Your task to perform on an android device: Open the stopwatch Image 0: 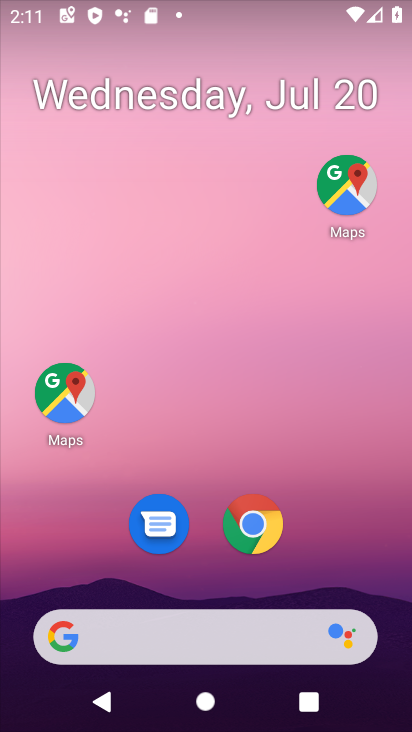
Step 0: drag from (218, 446) to (291, 7)
Your task to perform on an android device: Open the stopwatch Image 1: 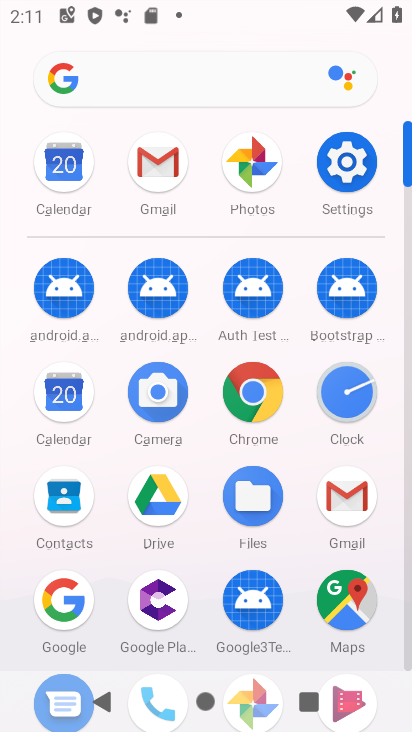
Step 1: click (328, 395)
Your task to perform on an android device: Open the stopwatch Image 2: 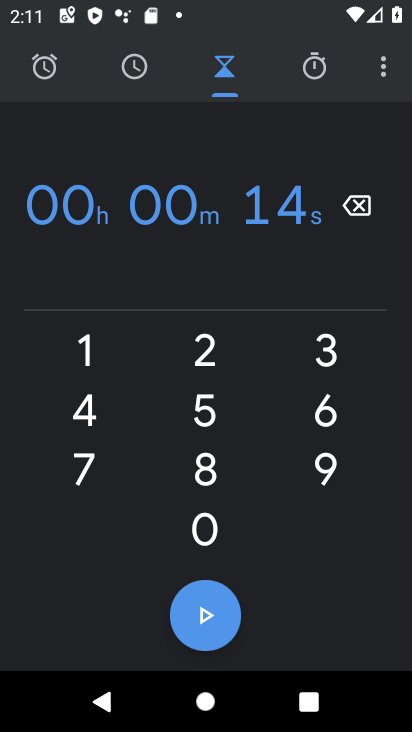
Step 2: click (321, 73)
Your task to perform on an android device: Open the stopwatch Image 3: 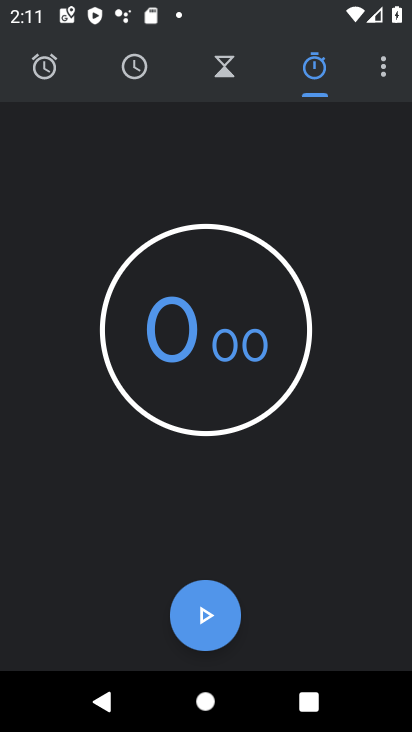
Step 3: task complete